Your task to perform on an android device: turn pop-ups off in chrome Image 0: 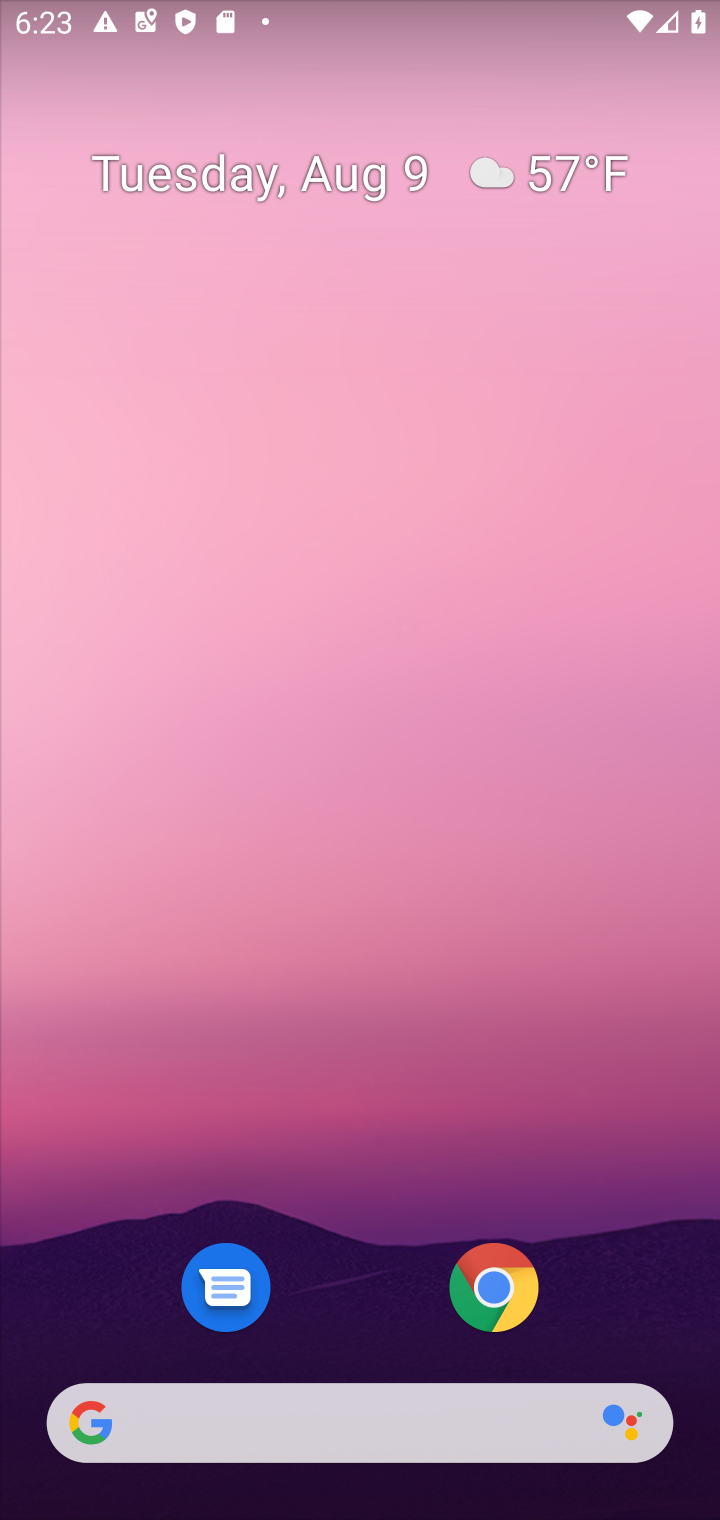
Step 0: drag from (331, 682) to (356, 309)
Your task to perform on an android device: turn pop-ups off in chrome Image 1: 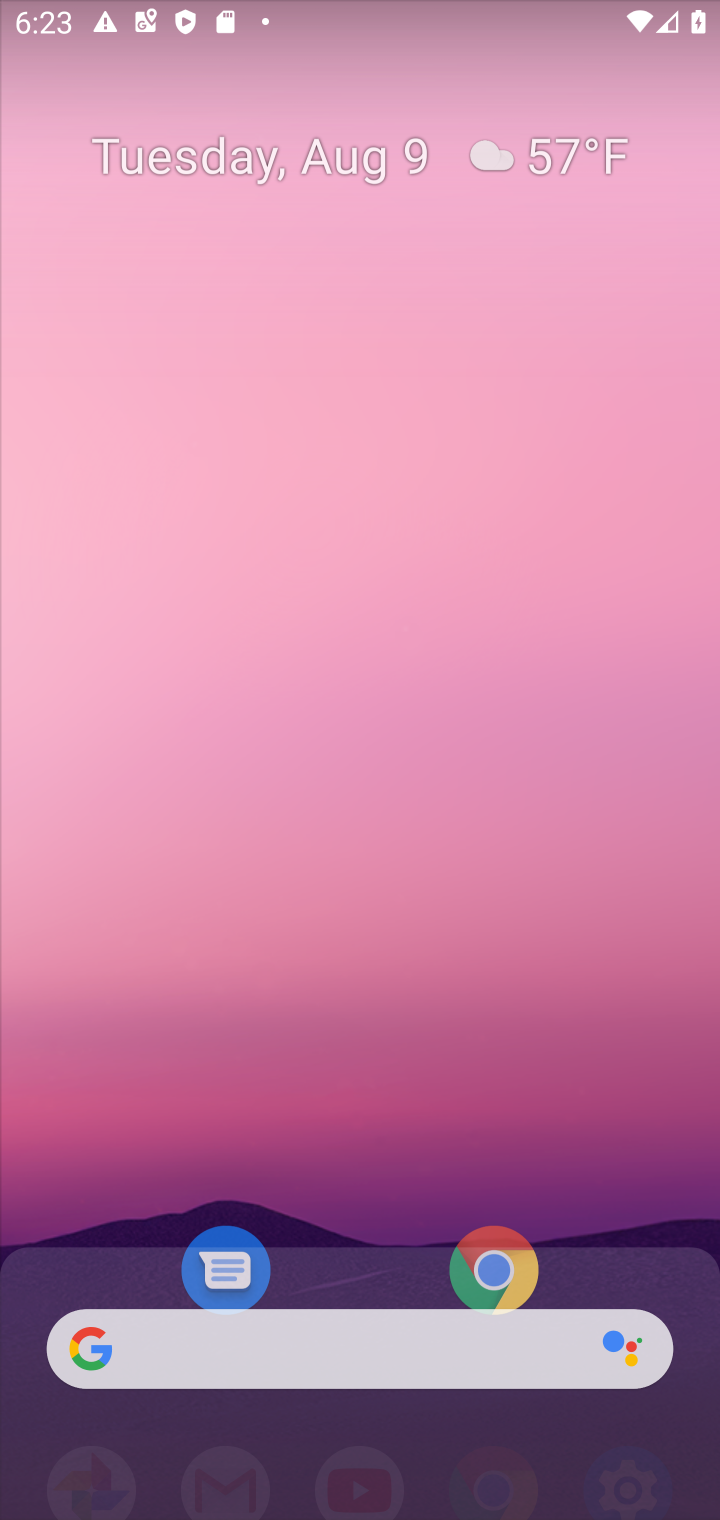
Step 1: click (500, 1281)
Your task to perform on an android device: turn pop-ups off in chrome Image 2: 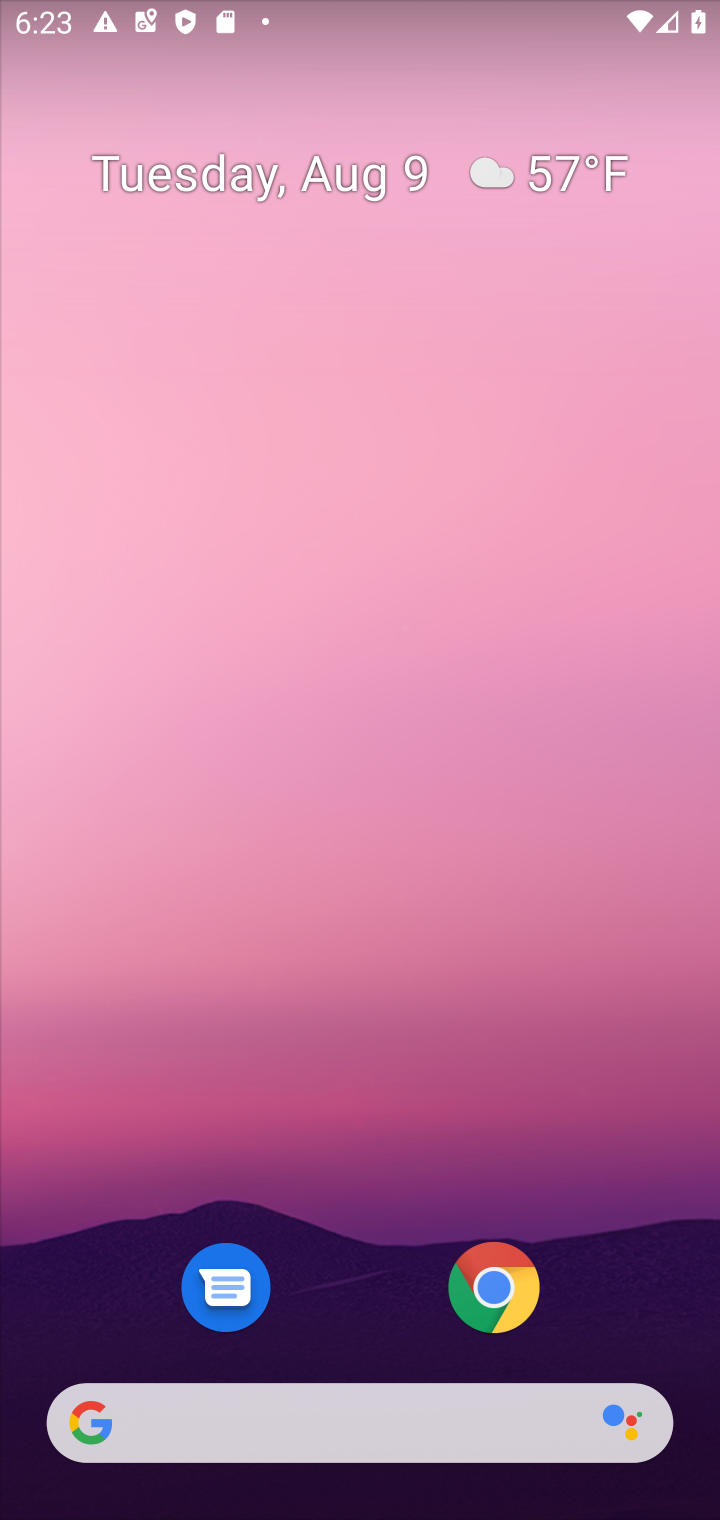
Step 2: click (500, 1281)
Your task to perform on an android device: turn pop-ups off in chrome Image 3: 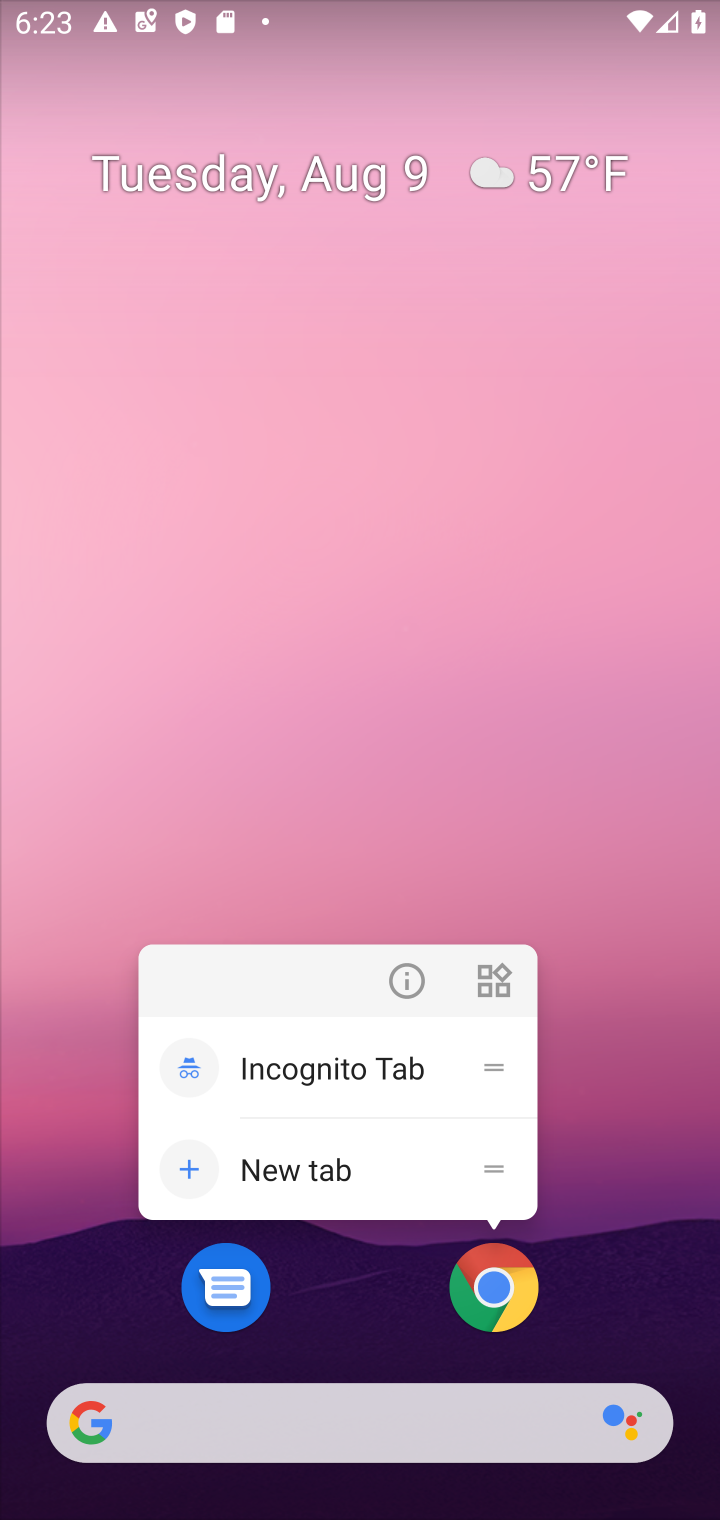
Step 3: click (532, 1301)
Your task to perform on an android device: turn pop-ups off in chrome Image 4: 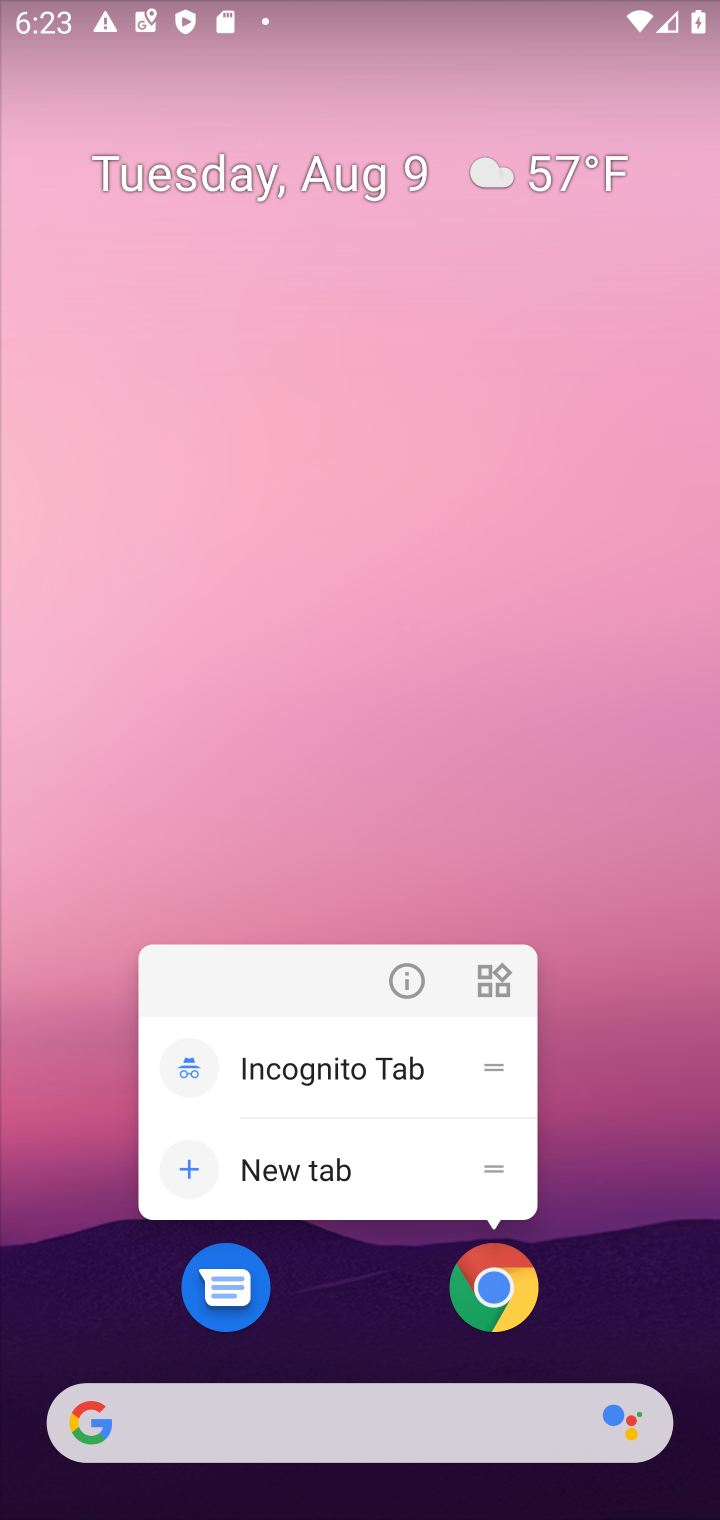
Step 4: click (513, 1282)
Your task to perform on an android device: turn pop-ups off in chrome Image 5: 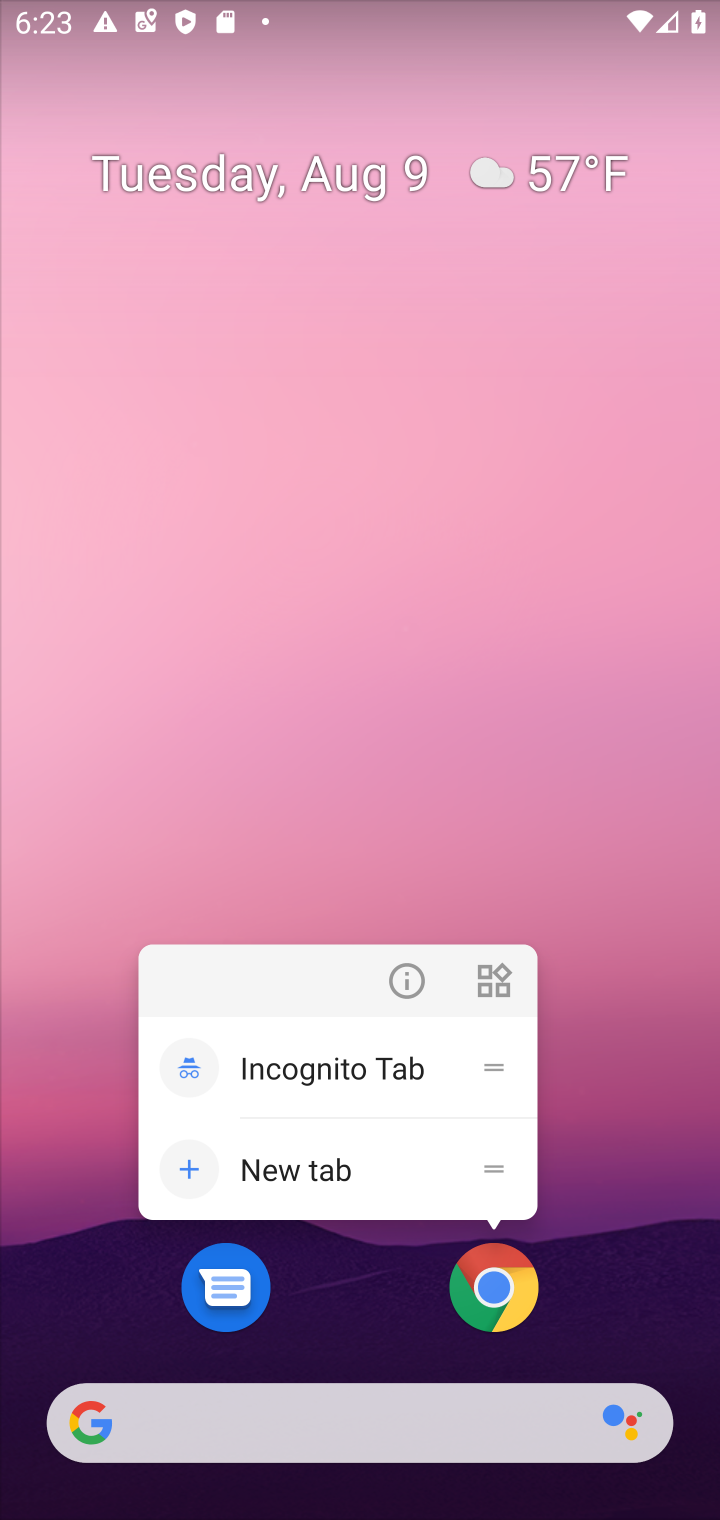
Step 5: task complete